Your task to perform on an android device: Open Chrome and go to settings Image 0: 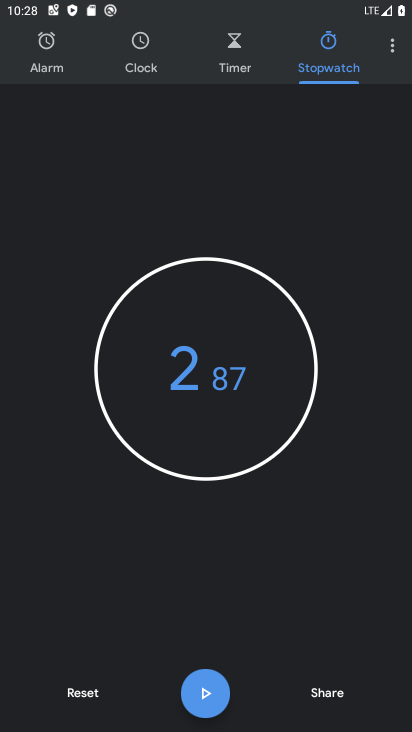
Step 0: press home button
Your task to perform on an android device: Open Chrome and go to settings Image 1: 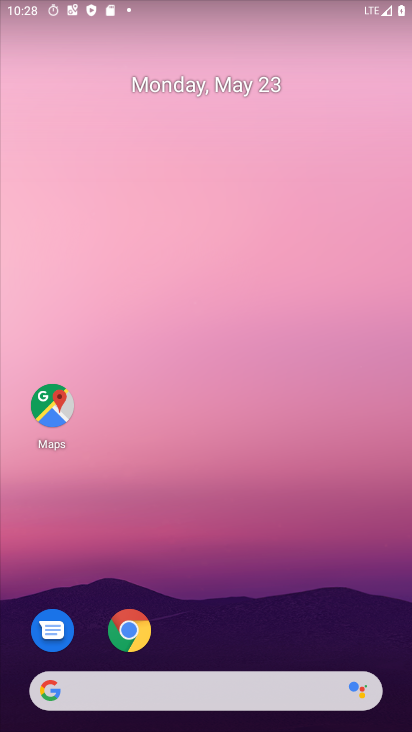
Step 1: click (131, 636)
Your task to perform on an android device: Open Chrome and go to settings Image 2: 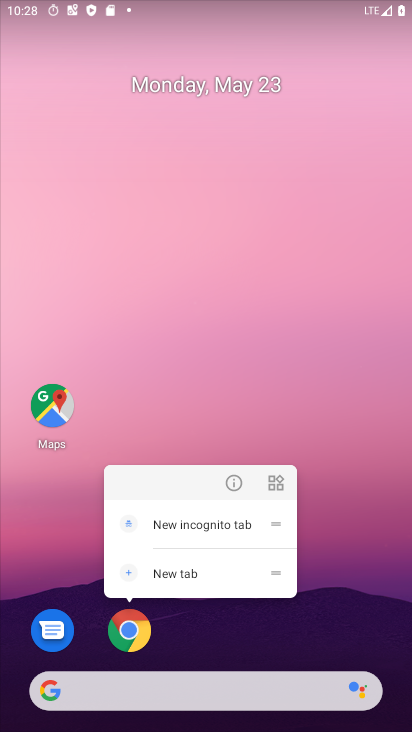
Step 2: click (131, 636)
Your task to perform on an android device: Open Chrome and go to settings Image 3: 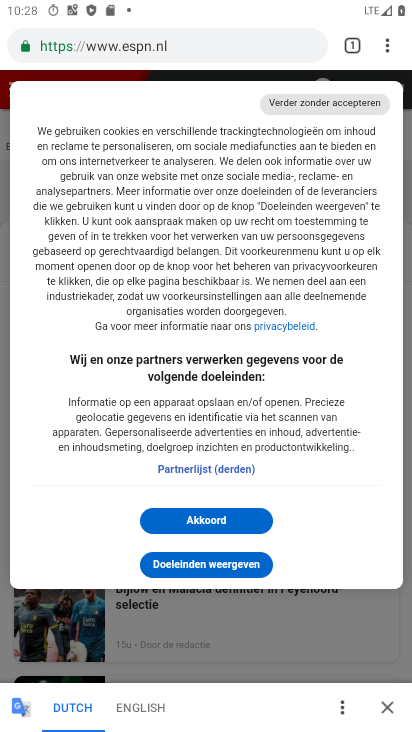
Step 3: click (387, 47)
Your task to perform on an android device: Open Chrome and go to settings Image 4: 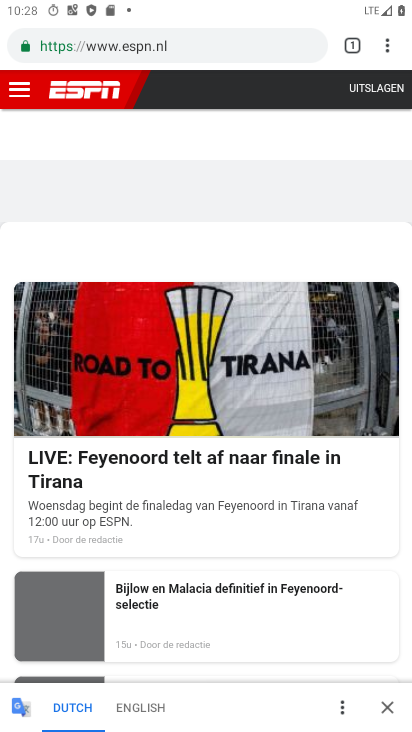
Step 4: click (385, 46)
Your task to perform on an android device: Open Chrome and go to settings Image 5: 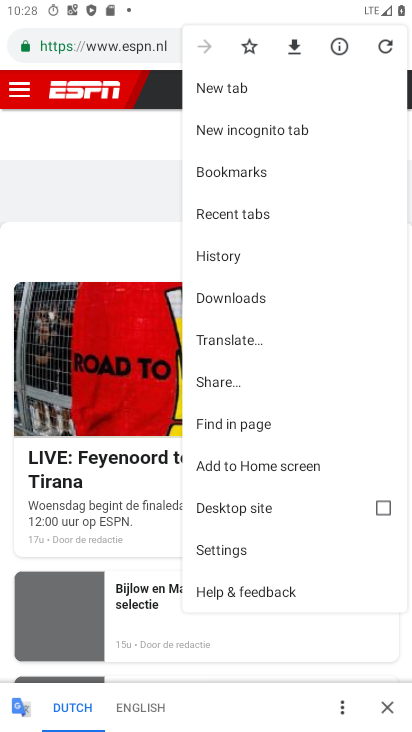
Step 5: click (216, 545)
Your task to perform on an android device: Open Chrome and go to settings Image 6: 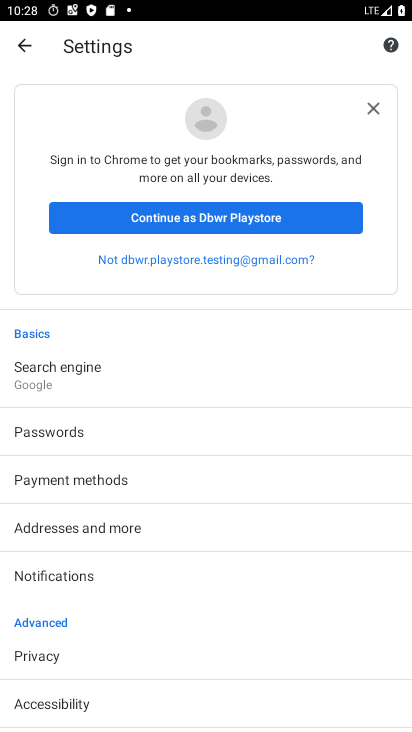
Step 6: task complete